Your task to perform on an android device: Open the stopwatch Image 0: 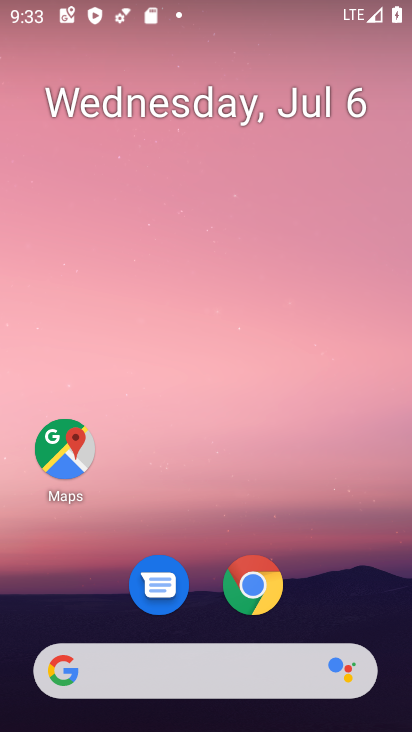
Step 0: drag from (245, 500) to (223, 0)
Your task to perform on an android device: Open the stopwatch Image 1: 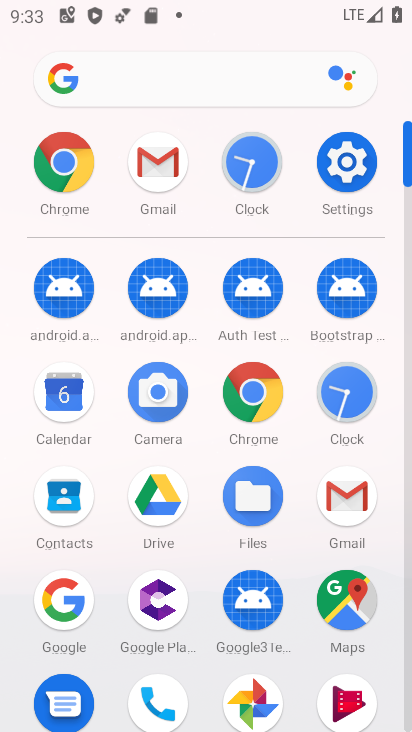
Step 1: click (265, 168)
Your task to perform on an android device: Open the stopwatch Image 2: 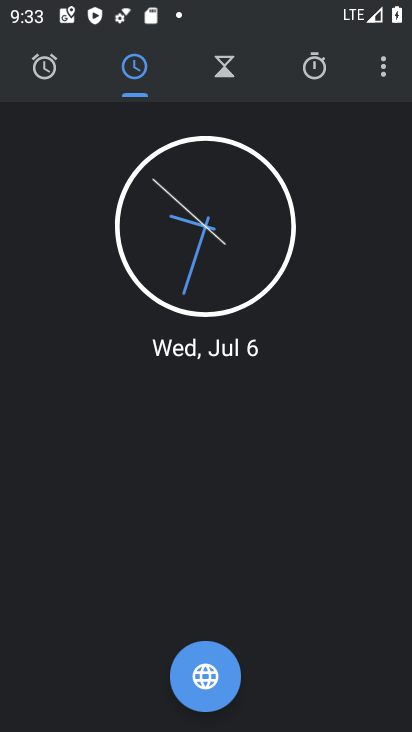
Step 2: click (319, 73)
Your task to perform on an android device: Open the stopwatch Image 3: 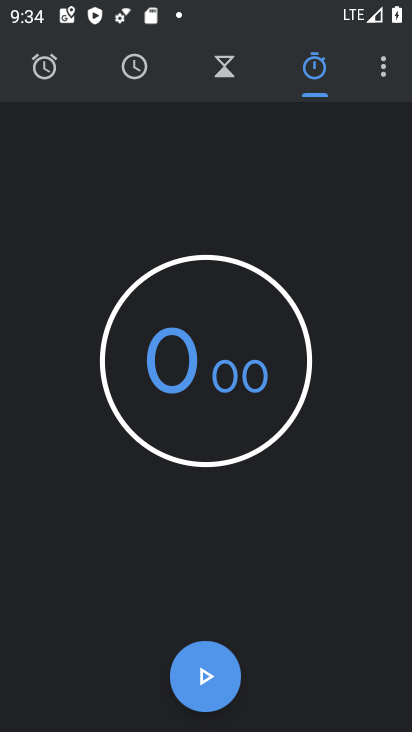
Step 3: task complete